Your task to perform on an android device: set an alarm Image 0: 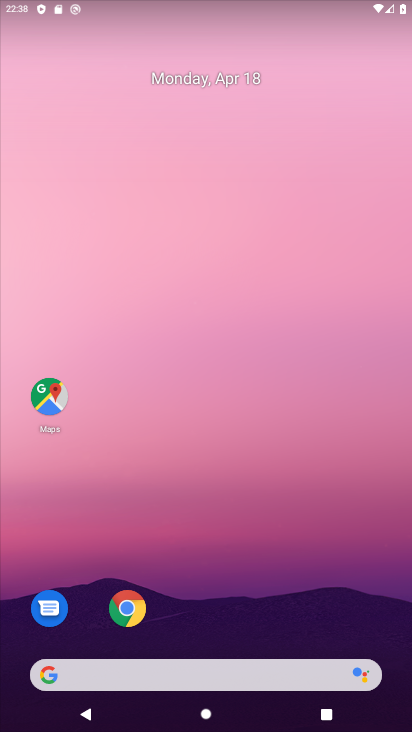
Step 0: drag from (241, 591) to (265, 127)
Your task to perform on an android device: set an alarm Image 1: 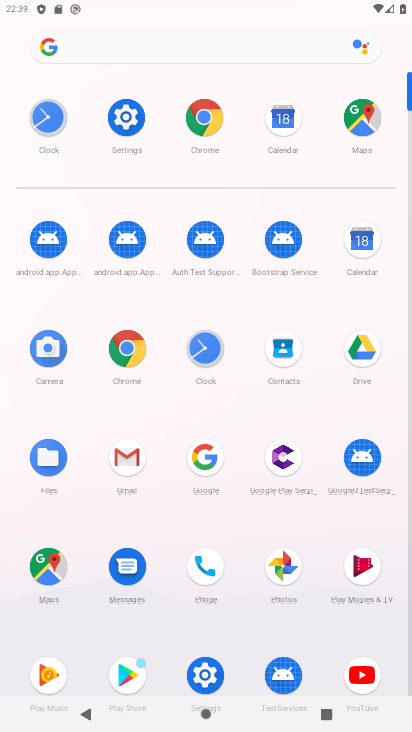
Step 1: click (210, 351)
Your task to perform on an android device: set an alarm Image 2: 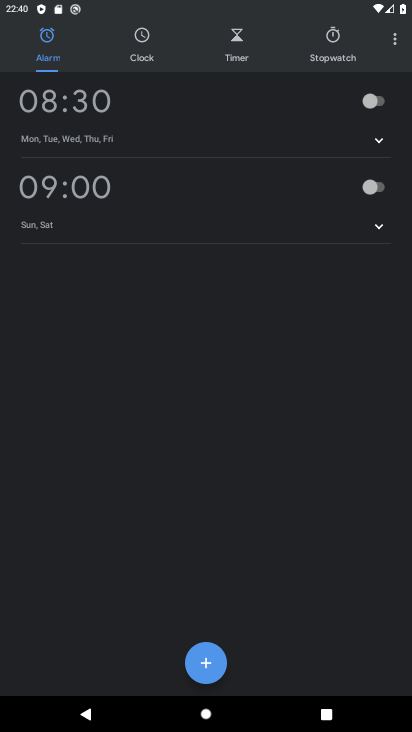
Step 2: task complete